Your task to perform on an android device: Do I have any events today? Image 0: 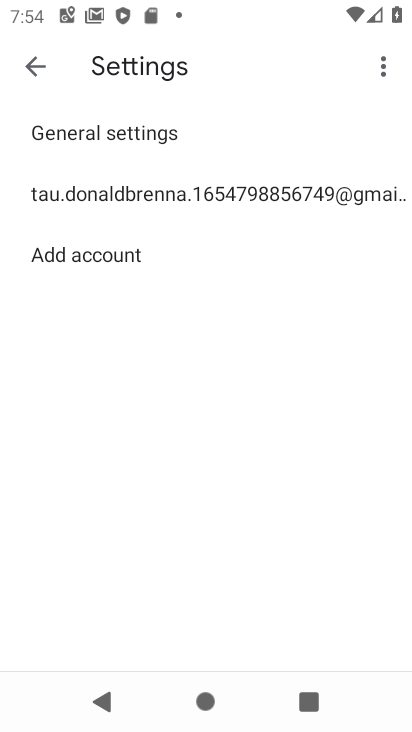
Step 0: press home button
Your task to perform on an android device: Do I have any events today? Image 1: 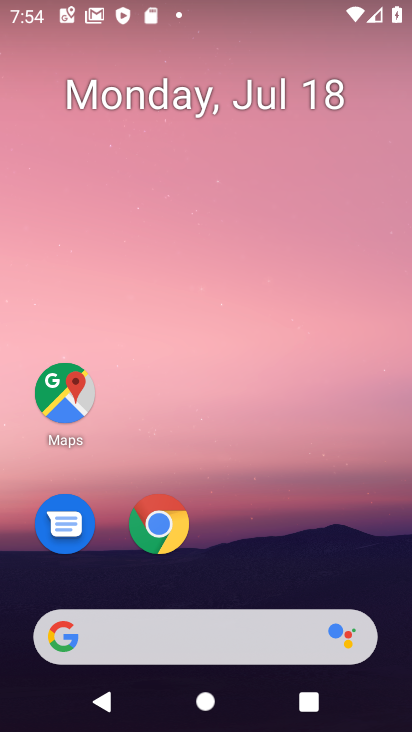
Step 1: drag from (260, 480) to (278, 21)
Your task to perform on an android device: Do I have any events today? Image 2: 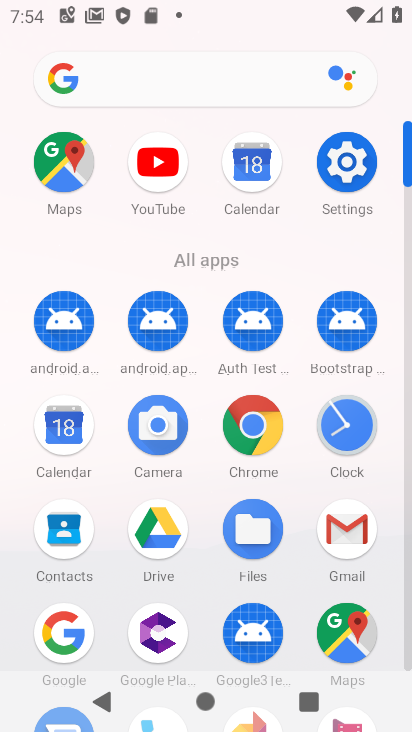
Step 2: click (257, 161)
Your task to perform on an android device: Do I have any events today? Image 3: 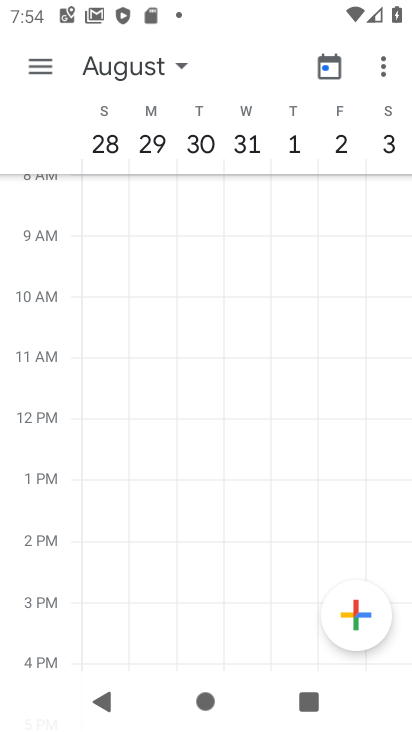
Step 3: drag from (89, 334) to (402, 338)
Your task to perform on an android device: Do I have any events today? Image 4: 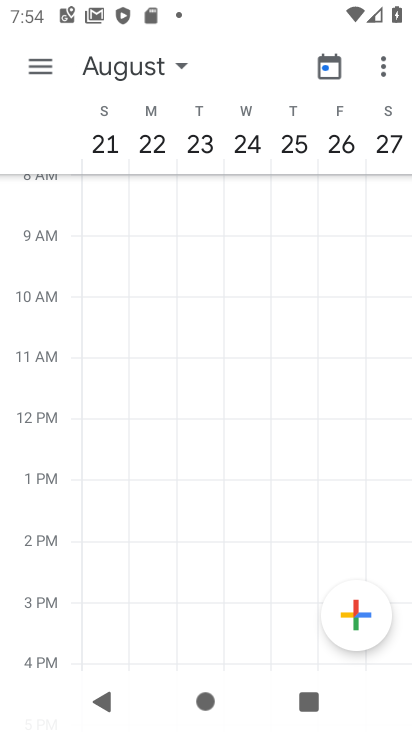
Step 4: drag from (113, 327) to (410, 328)
Your task to perform on an android device: Do I have any events today? Image 5: 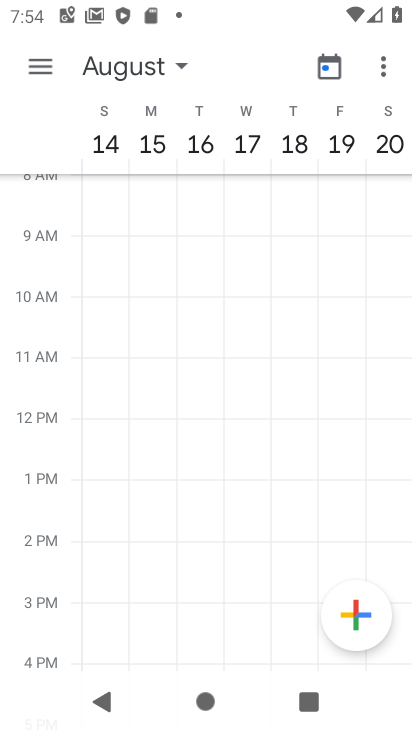
Step 5: drag from (92, 313) to (409, 340)
Your task to perform on an android device: Do I have any events today? Image 6: 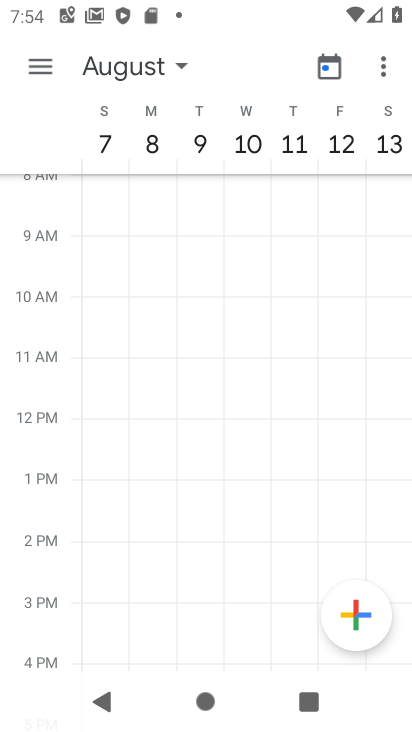
Step 6: drag from (91, 373) to (399, 387)
Your task to perform on an android device: Do I have any events today? Image 7: 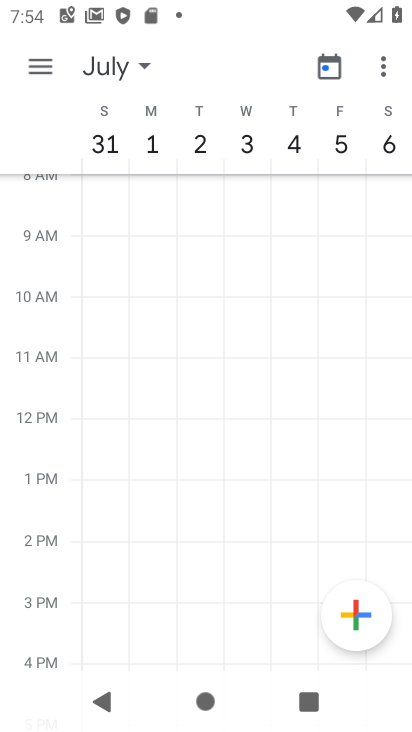
Step 7: drag from (90, 389) to (411, 405)
Your task to perform on an android device: Do I have any events today? Image 8: 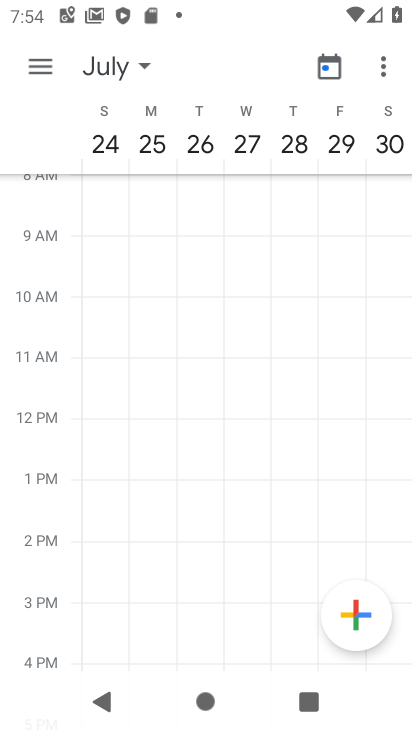
Step 8: drag from (102, 389) to (408, 386)
Your task to perform on an android device: Do I have any events today? Image 9: 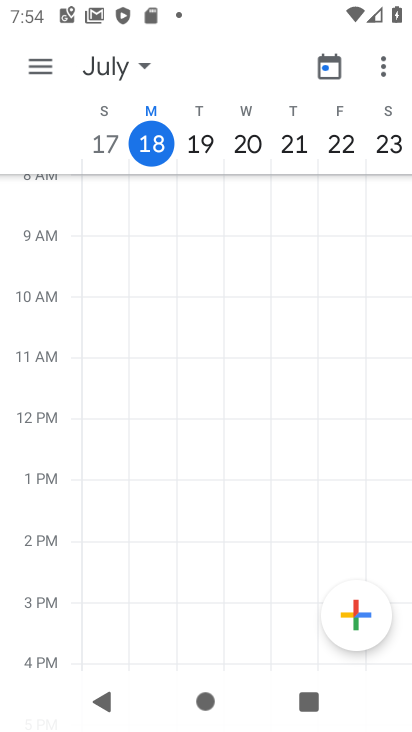
Step 9: click (154, 151)
Your task to perform on an android device: Do I have any events today? Image 10: 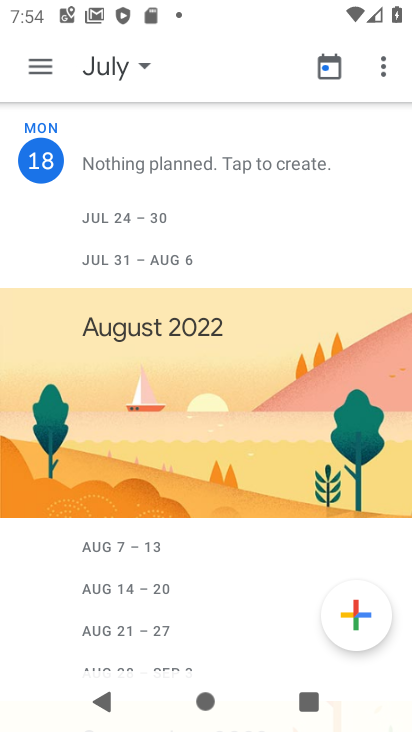
Step 10: task complete